Your task to perform on an android device: Search for Italian restaurants on Maps Image 0: 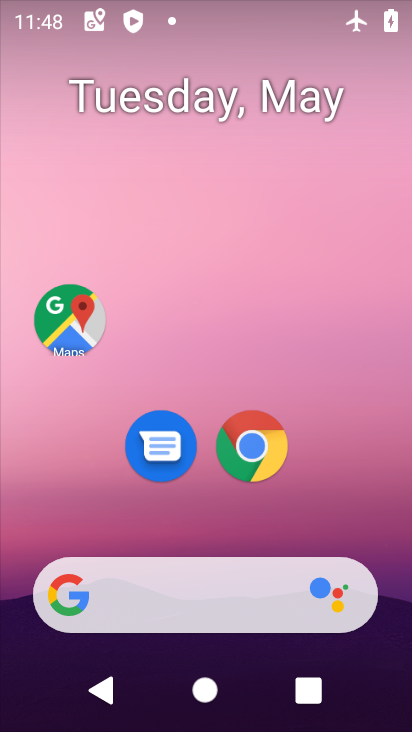
Step 0: drag from (221, 722) to (226, 191)
Your task to perform on an android device: Search for Italian restaurants on Maps Image 1: 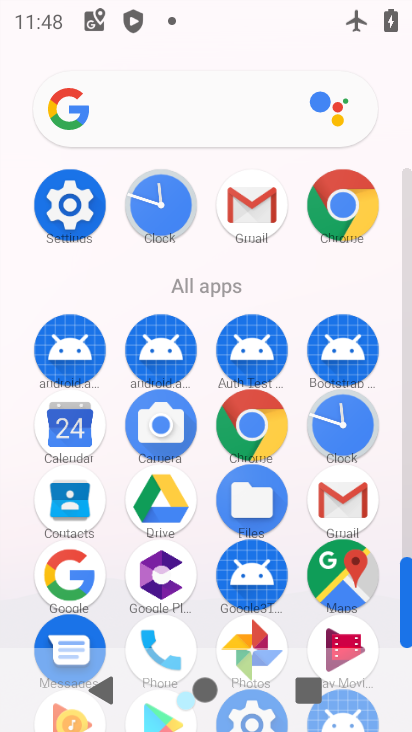
Step 1: click (334, 564)
Your task to perform on an android device: Search for Italian restaurants on Maps Image 2: 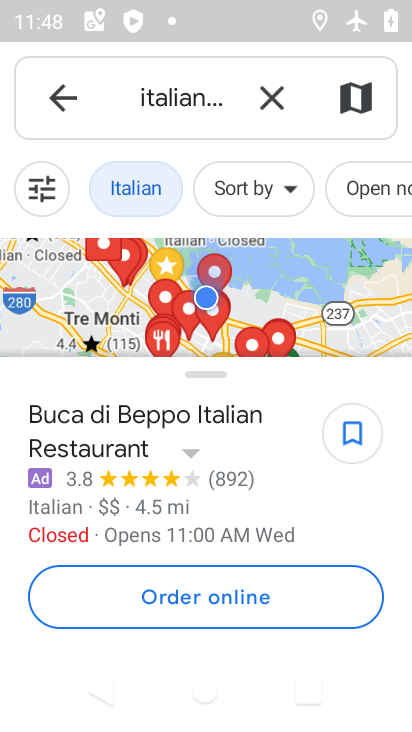
Step 2: click (267, 99)
Your task to perform on an android device: Search for Italian restaurants on Maps Image 3: 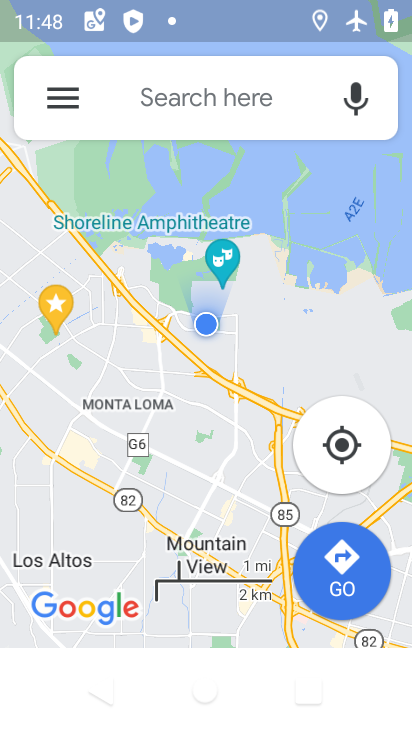
Step 3: click (267, 99)
Your task to perform on an android device: Search for Italian restaurants on Maps Image 4: 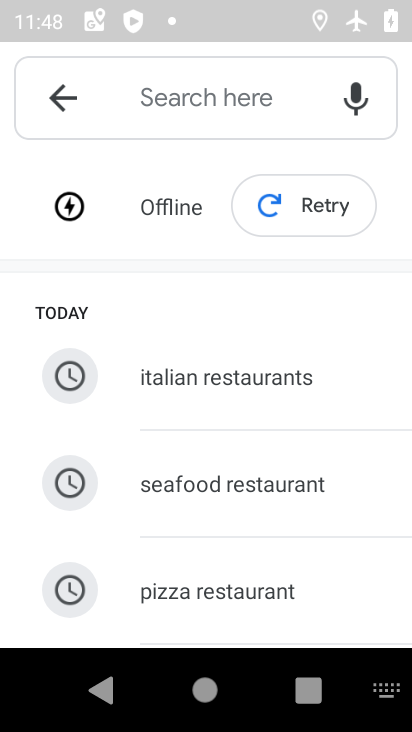
Step 4: type "italian restaurants"
Your task to perform on an android device: Search for Italian restaurants on Maps Image 5: 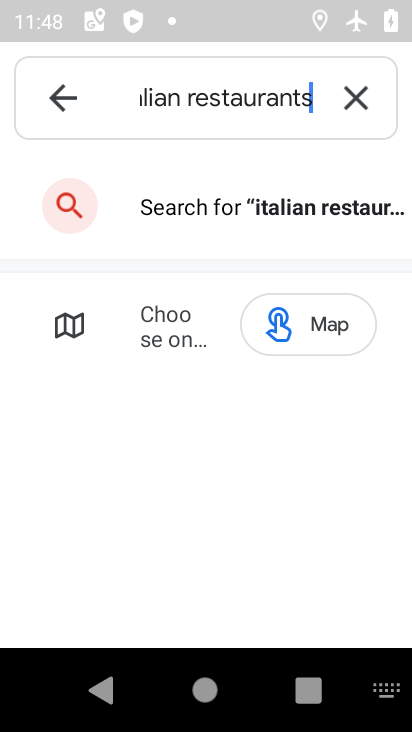
Step 5: click (291, 213)
Your task to perform on an android device: Search for Italian restaurants on Maps Image 6: 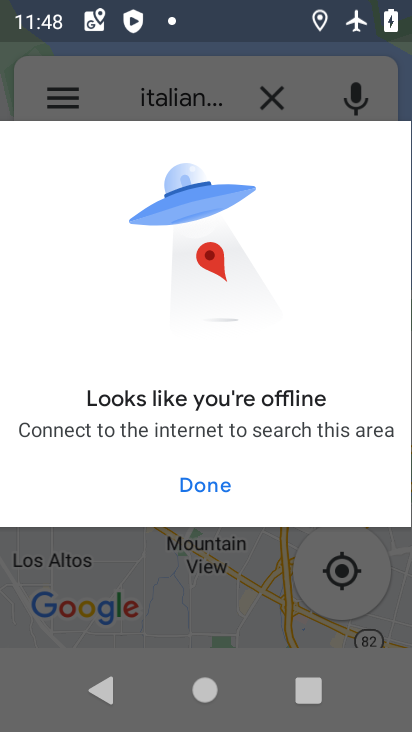
Step 6: click (209, 488)
Your task to perform on an android device: Search for Italian restaurants on Maps Image 7: 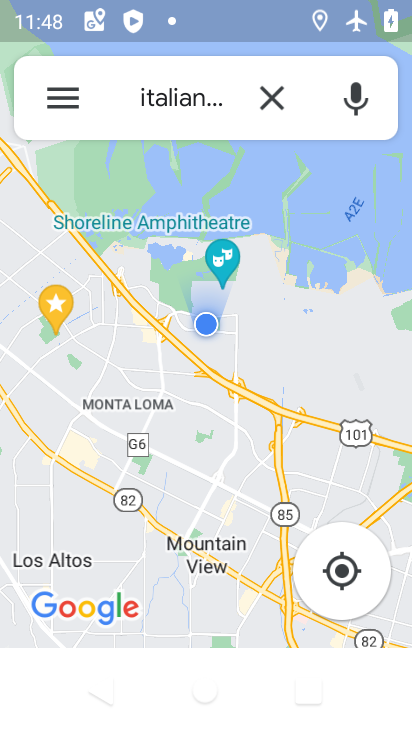
Step 7: task complete